Your task to perform on an android device: Open calendar and show me the second week of next month Image 0: 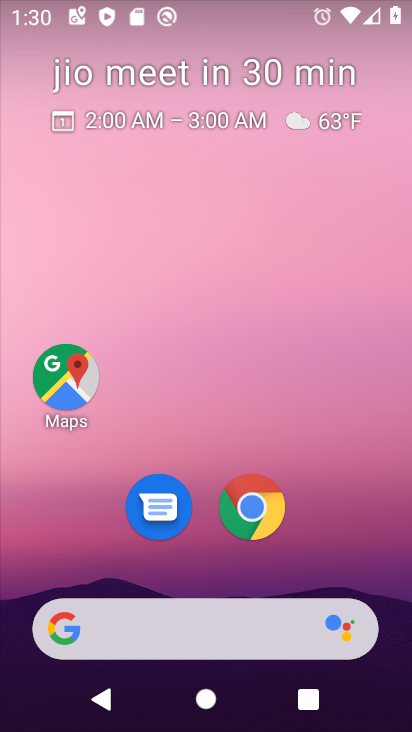
Step 0: drag from (311, 536) to (288, 84)
Your task to perform on an android device: Open calendar and show me the second week of next month Image 1: 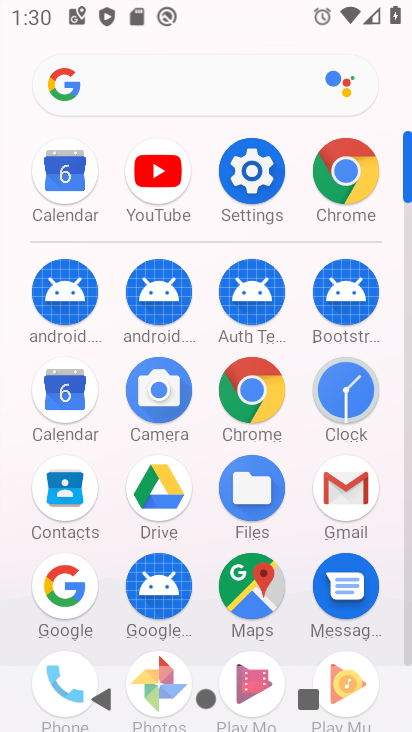
Step 1: click (71, 181)
Your task to perform on an android device: Open calendar and show me the second week of next month Image 2: 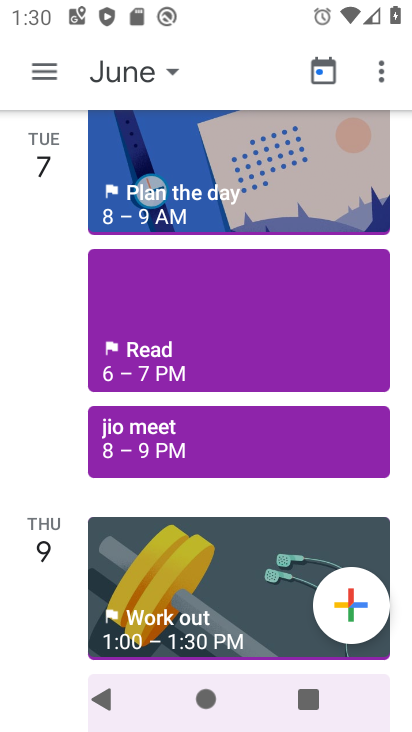
Step 2: click (43, 65)
Your task to perform on an android device: Open calendar and show me the second week of next month Image 3: 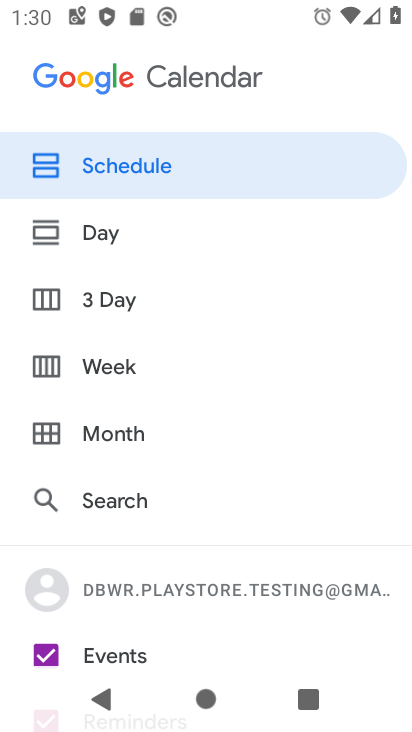
Step 3: click (99, 417)
Your task to perform on an android device: Open calendar and show me the second week of next month Image 4: 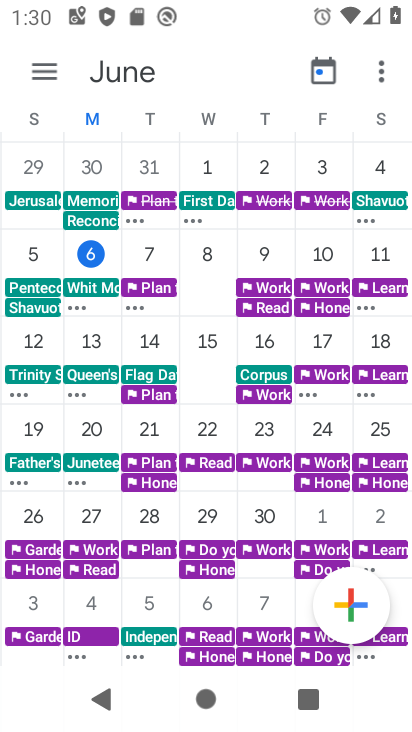
Step 4: drag from (373, 425) to (4, 442)
Your task to perform on an android device: Open calendar and show me the second week of next month Image 5: 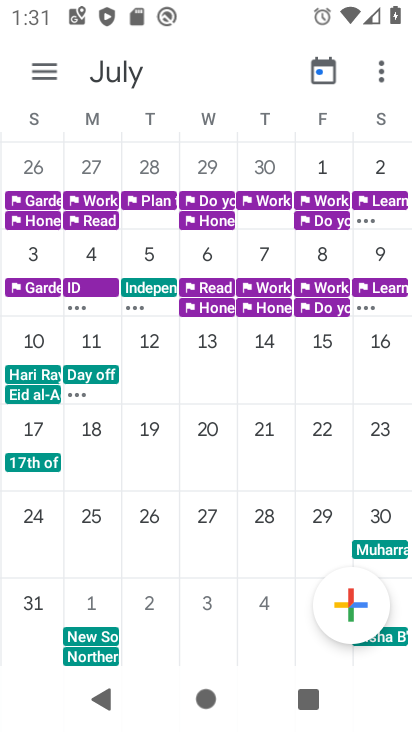
Step 5: click (37, 336)
Your task to perform on an android device: Open calendar and show me the second week of next month Image 6: 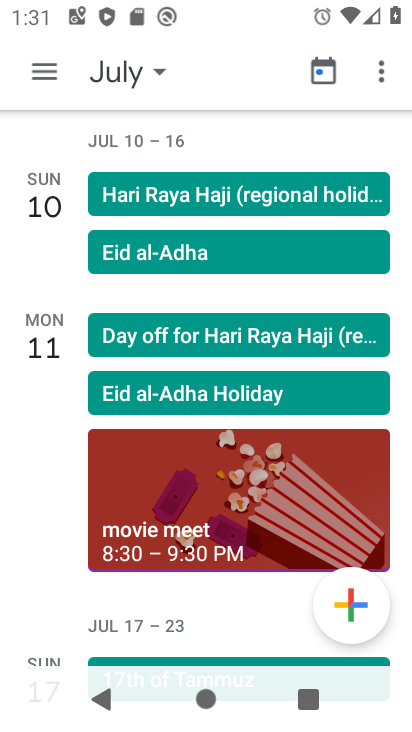
Step 6: click (53, 76)
Your task to perform on an android device: Open calendar and show me the second week of next month Image 7: 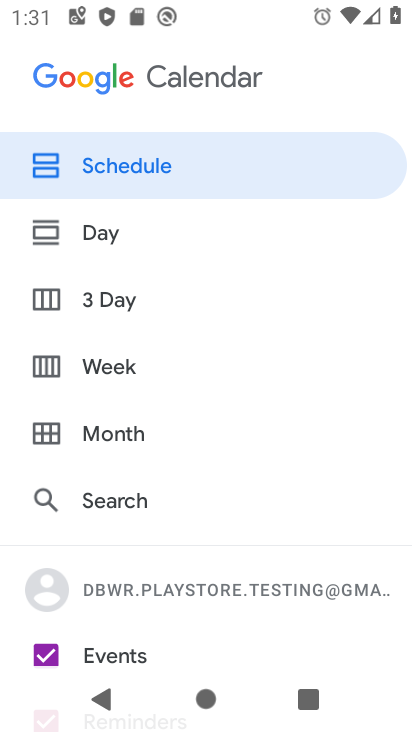
Step 7: click (43, 368)
Your task to perform on an android device: Open calendar and show me the second week of next month Image 8: 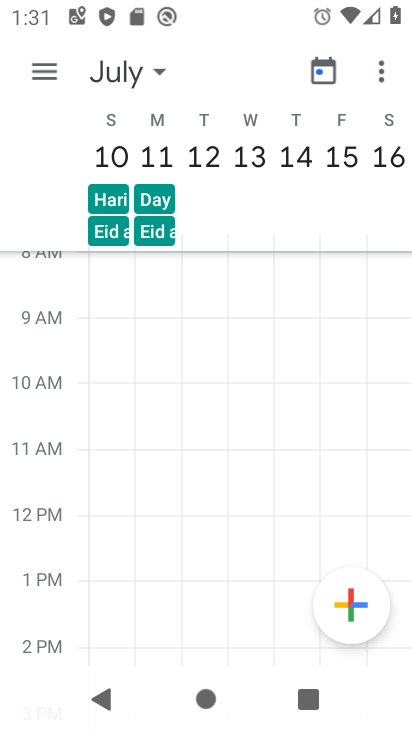
Step 8: task complete